Your task to perform on an android device: Turn off the flashlight Image 0: 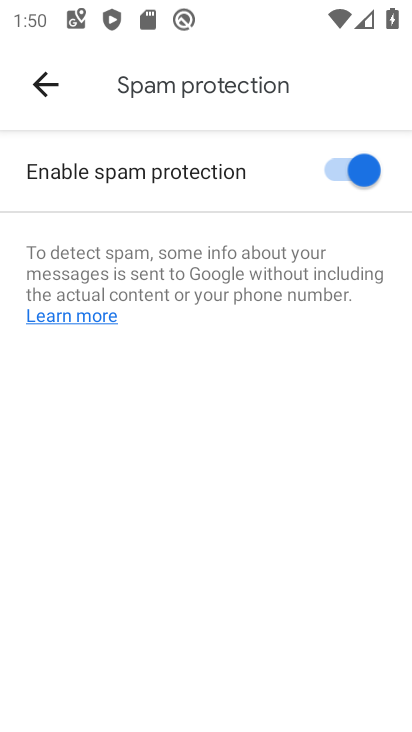
Step 0: press home button
Your task to perform on an android device: Turn off the flashlight Image 1: 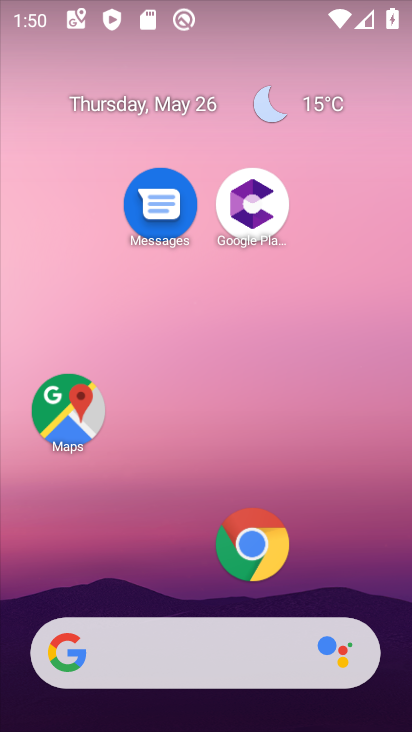
Step 1: drag from (179, 609) to (213, 120)
Your task to perform on an android device: Turn off the flashlight Image 2: 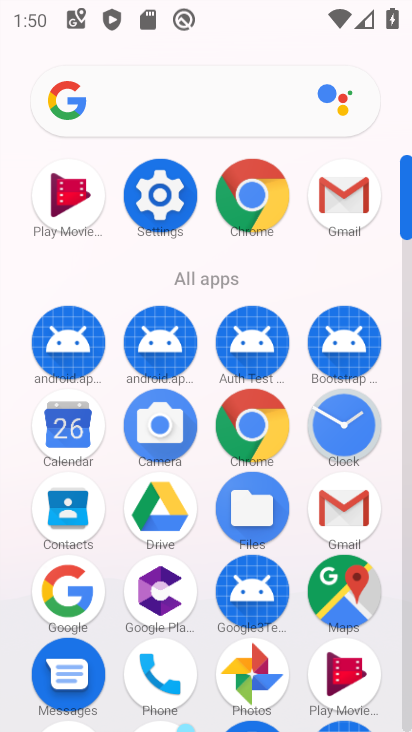
Step 2: click (147, 208)
Your task to perform on an android device: Turn off the flashlight Image 3: 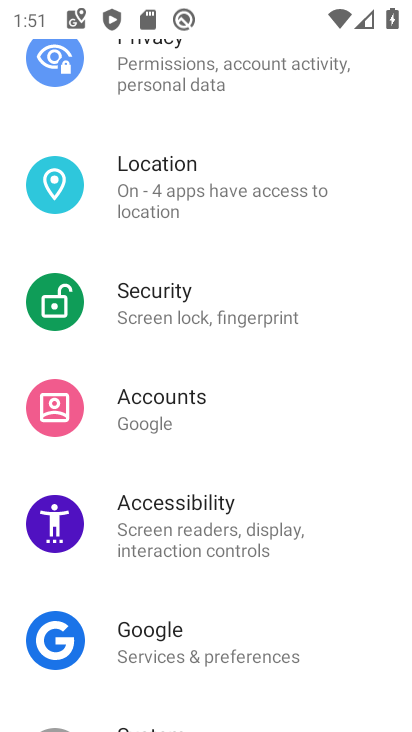
Step 3: task complete